Your task to perform on an android device: Open calendar and show me the fourth week of next month Image 0: 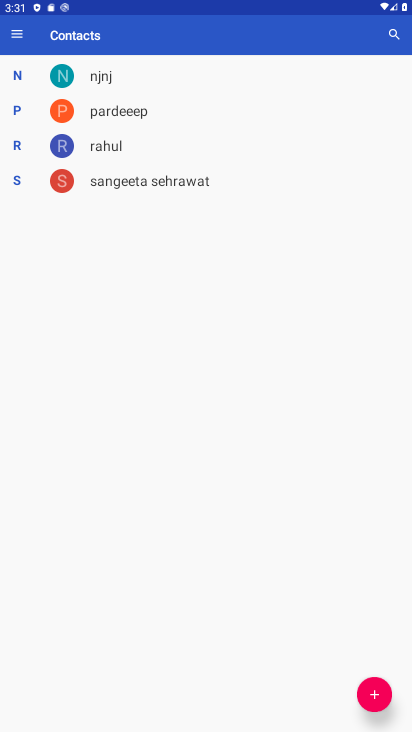
Step 0: press home button
Your task to perform on an android device: Open calendar and show me the fourth week of next month Image 1: 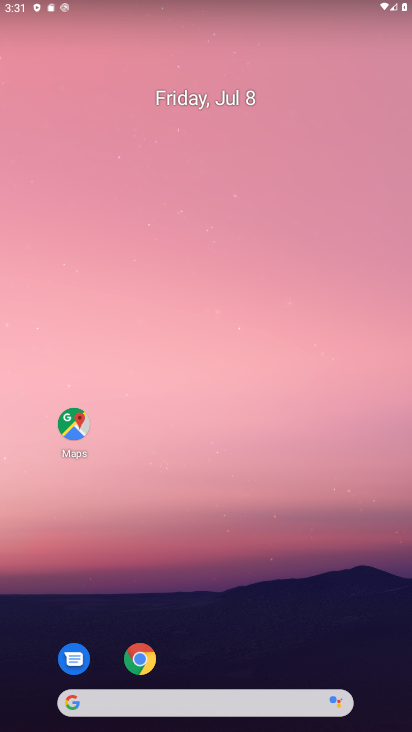
Step 1: drag from (212, 610) to (248, 7)
Your task to perform on an android device: Open calendar and show me the fourth week of next month Image 2: 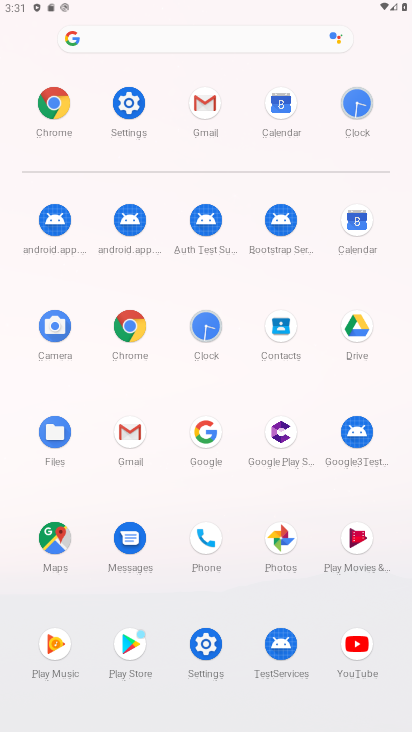
Step 2: click (354, 233)
Your task to perform on an android device: Open calendar and show me the fourth week of next month Image 3: 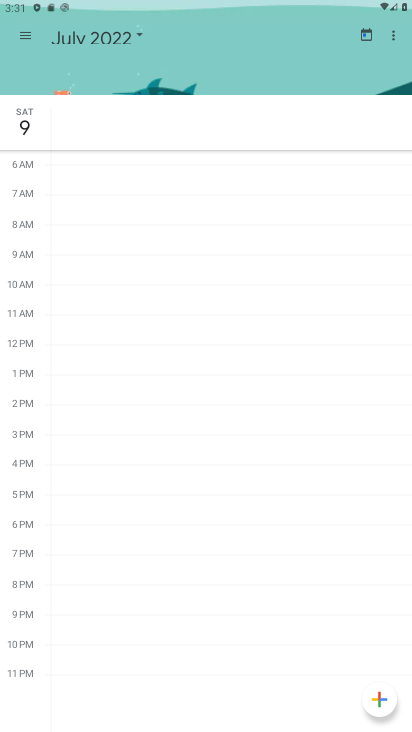
Step 3: click (112, 18)
Your task to perform on an android device: Open calendar and show me the fourth week of next month Image 4: 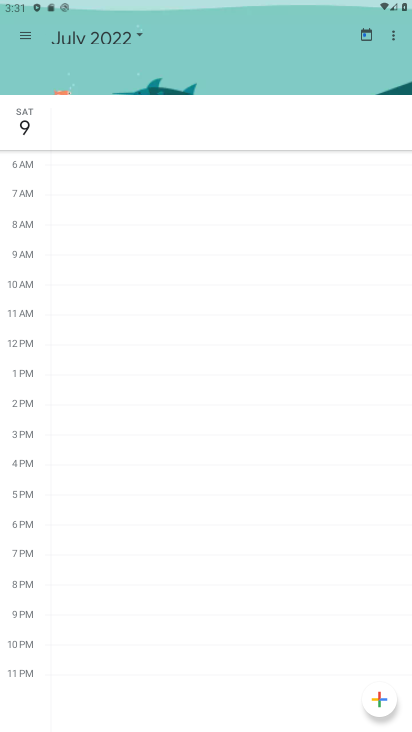
Step 4: click (120, 41)
Your task to perform on an android device: Open calendar and show me the fourth week of next month Image 5: 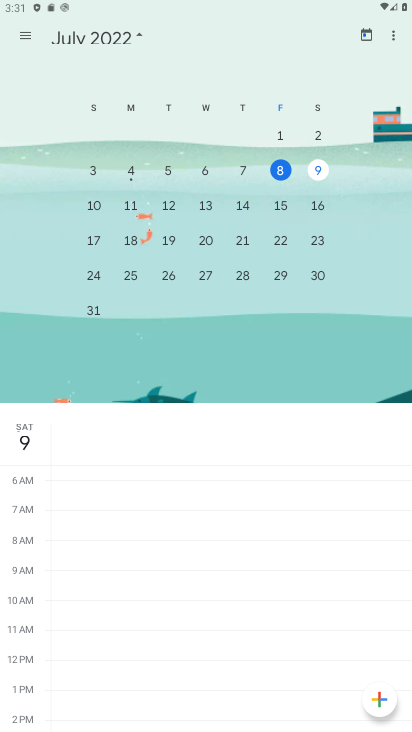
Step 5: drag from (250, 255) to (0, 221)
Your task to perform on an android device: Open calendar and show me the fourth week of next month Image 6: 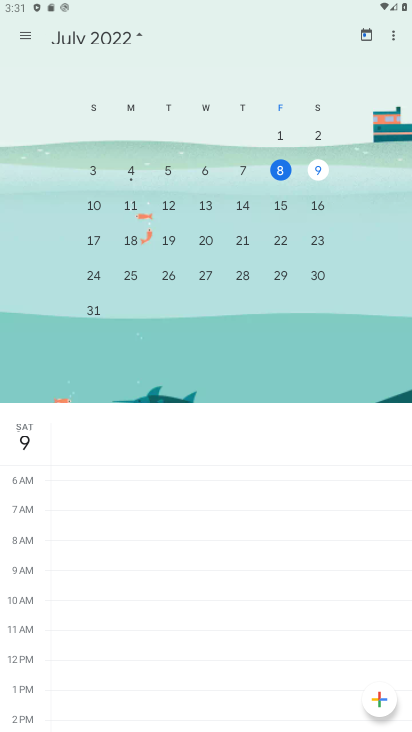
Step 6: click (86, 282)
Your task to perform on an android device: Open calendar and show me the fourth week of next month Image 7: 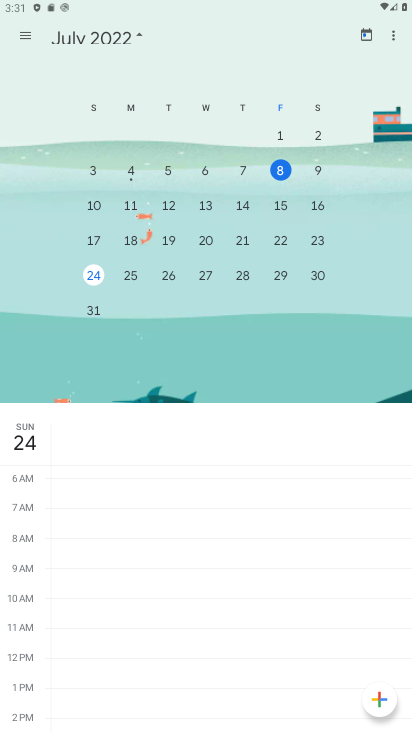
Step 7: drag from (304, 261) to (14, 287)
Your task to perform on an android device: Open calendar and show me the fourth week of next month Image 8: 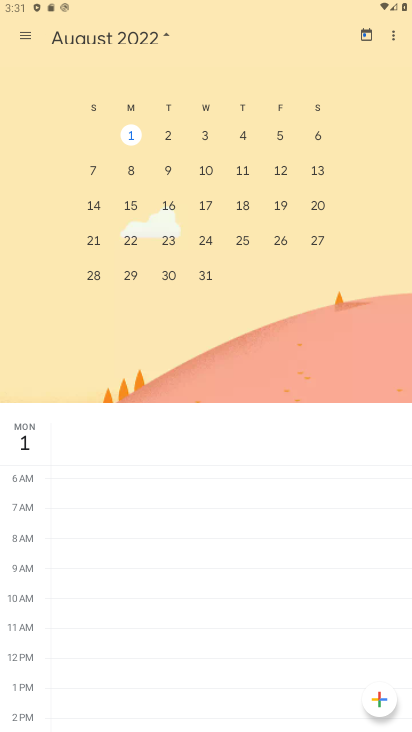
Step 8: click (97, 238)
Your task to perform on an android device: Open calendar and show me the fourth week of next month Image 9: 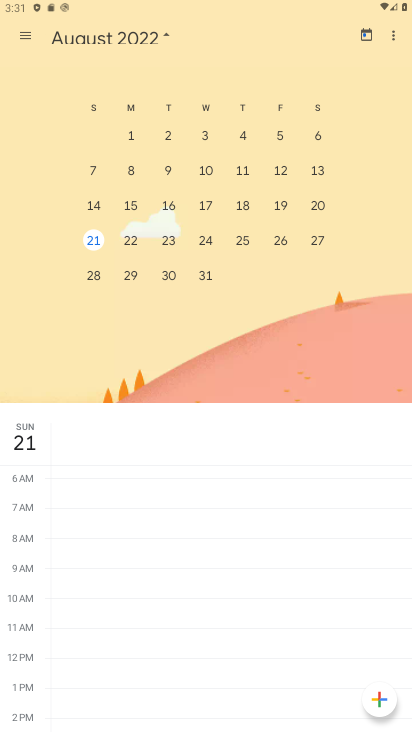
Step 9: click (37, 44)
Your task to perform on an android device: Open calendar and show me the fourth week of next month Image 10: 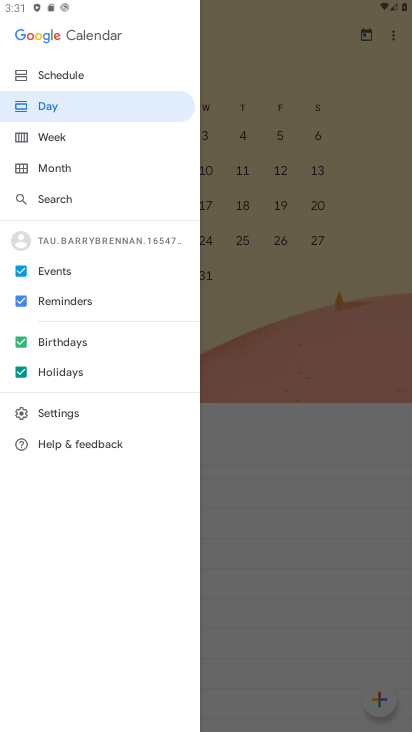
Step 10: click (69, 145)
Your task to perform on an android device: Open calendar and show me the fourth week of next month Image 11: 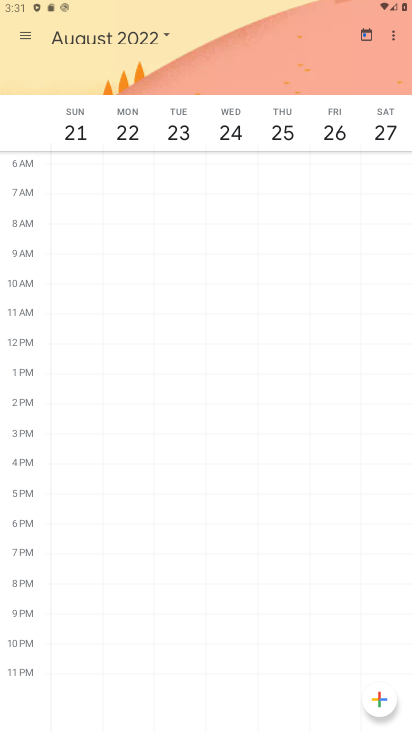
Step 11: task complete